Your task to perform on an android device: Play the last video I watched on Youtube Image 0: 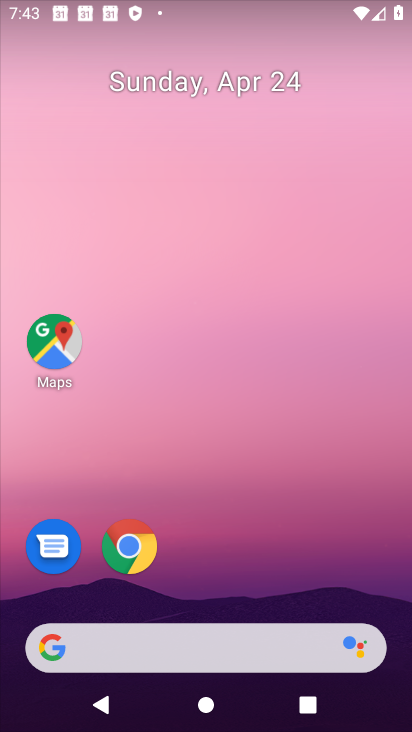
Step 0: drag from (384, 548) to (212, 43)
Your task to perform on an android device: Play the last video I watched on Youtube Image 1: 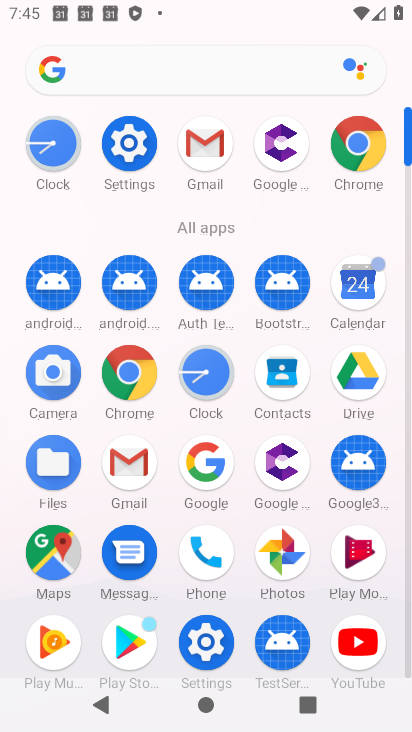
Step 1: click (361, 662)
Your task to perform on an android device: Play the last video I watched on Youtube Image 2: 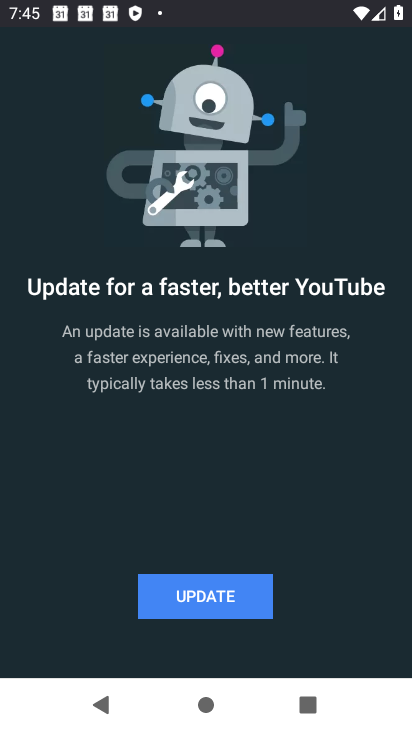
Step 2: click (250, 582)
Your task to perform on an android device: Play the last video I watched on Youtube Image 3: 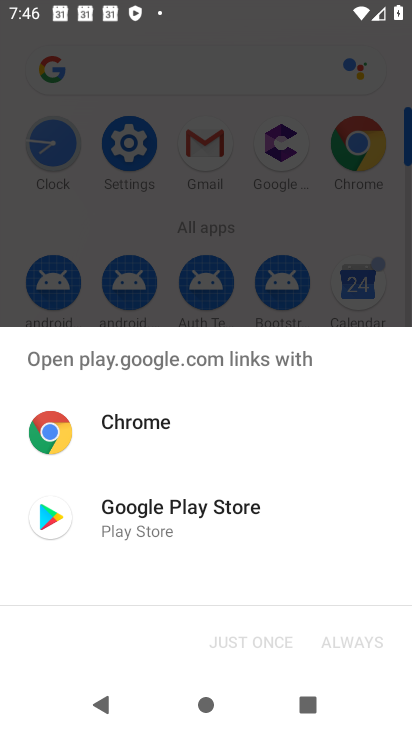
Step 3: click (252, 519)
Your task to perform on an android device: Play the last video I watched on Youtube Image 4: 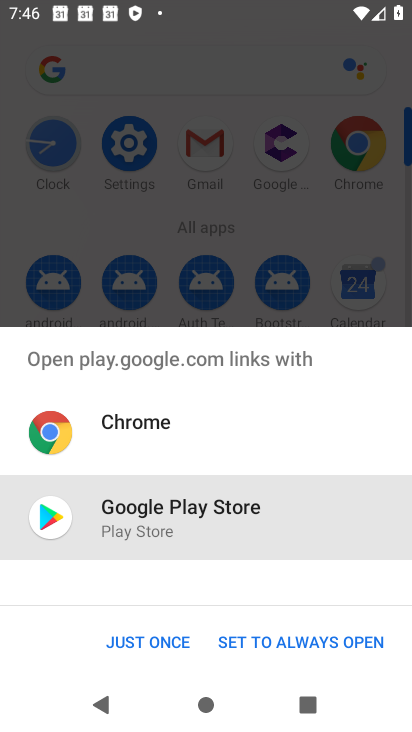
Step 4: click (252, 519)
Your task to perform on an android device: Play the last video I watched on Youtube Image 5: 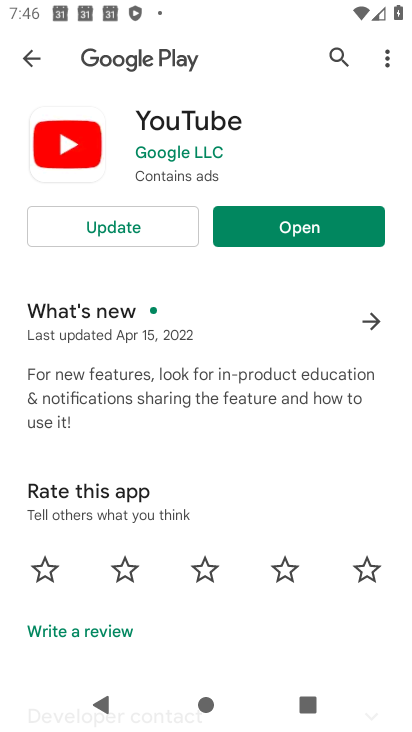
Step 5: click (59, 229)
Your task to perform on an android device: Play the last video I watched on Youtube Image 6: 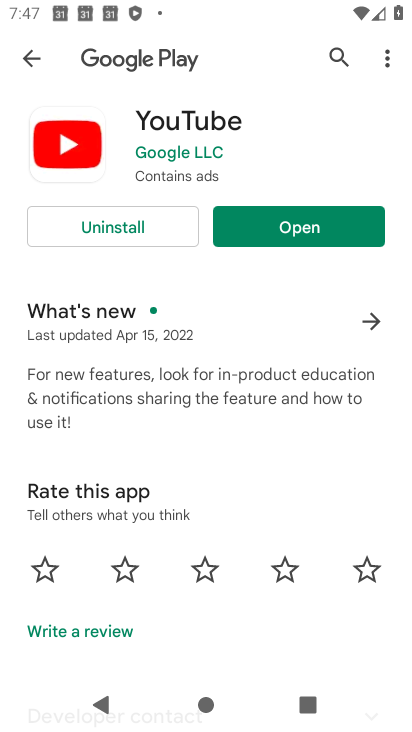
Step 6: click (314, 211)
Your task to perform on an android device: Play the last video I watched on Youtube Image 7: 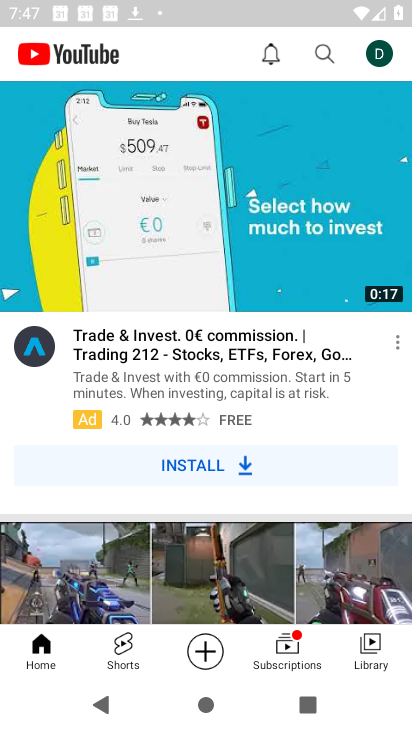
Step 7: click (380, 650)
Your task to perform on an android device: Play the last video I watched on Youtube Image 8: 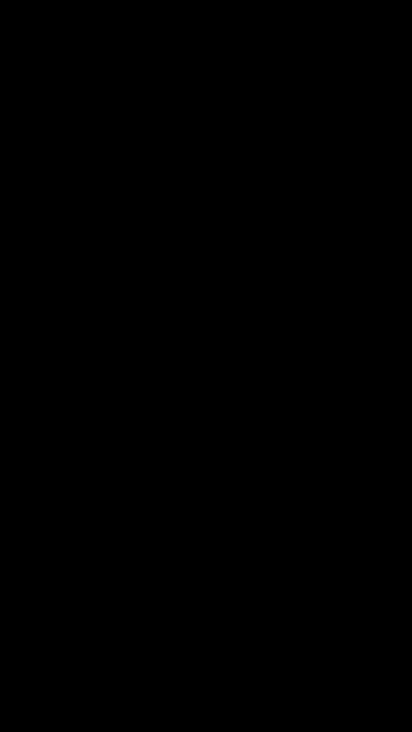
Step 8: task complete